Your task to perform on an android device: Search for a new lawnmower on Lowes. Image 0: 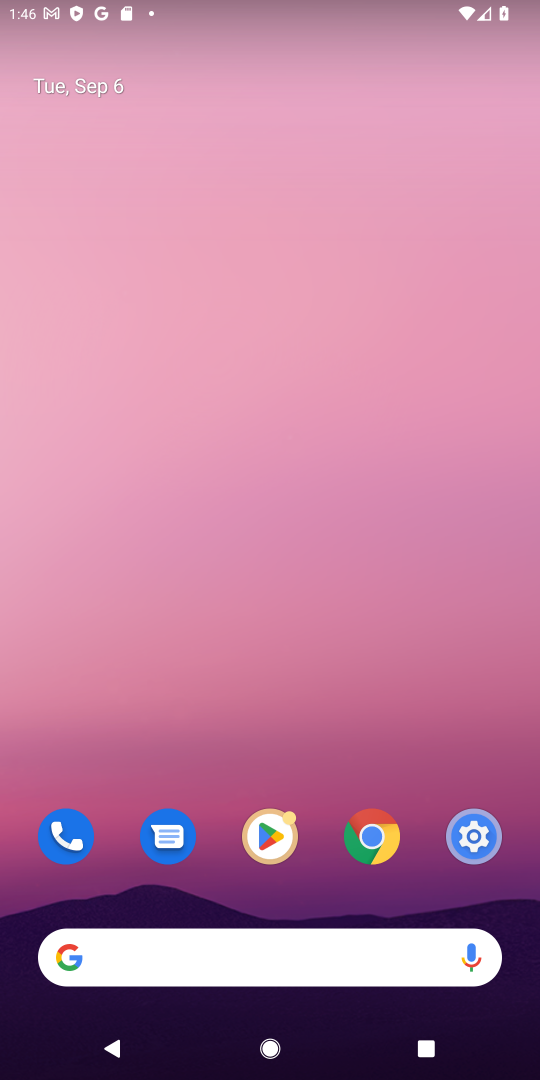
Step 0: click (181, 963)
Your task to perform on an android device: Search for a new lawnmower on Lowes. Image 1: 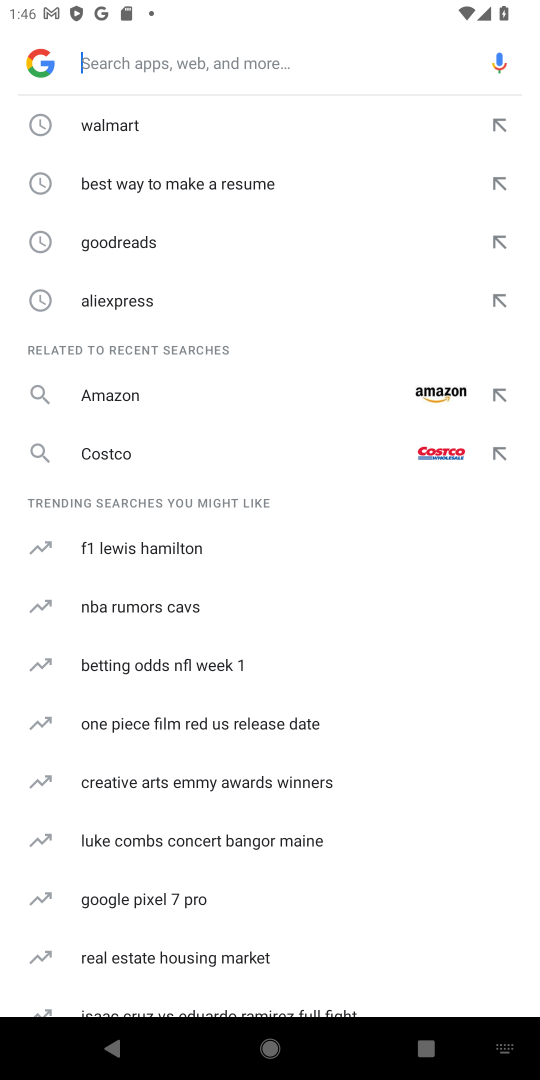
Step 1: type "lowes"
Your task to perform on an android device: Search for a new lawnmower on Lowes. Image 2: 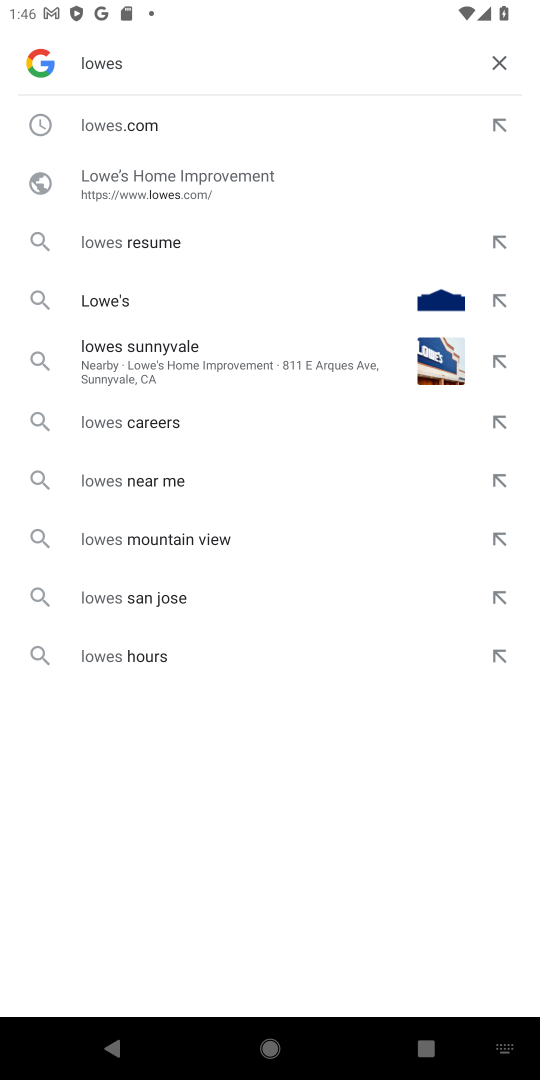
Step 2: click (112, 121)
Your task to perform on an android device: Search for a new lawnmower on Lowes. Image 3: 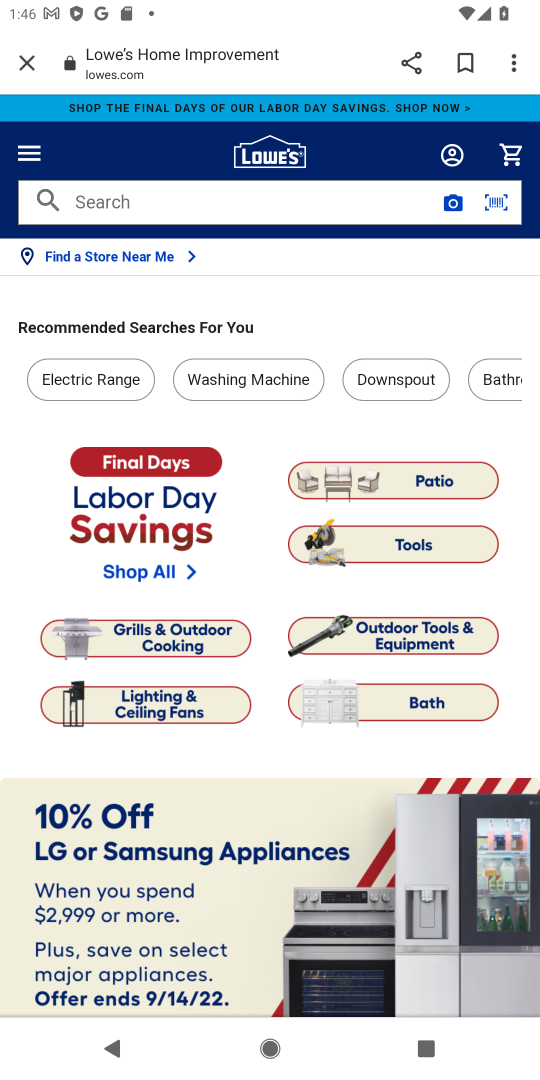
Step 3: click (140, 202)
Your task to perform on an android device: Search for a new lawnmower on Lowes. Image 4: 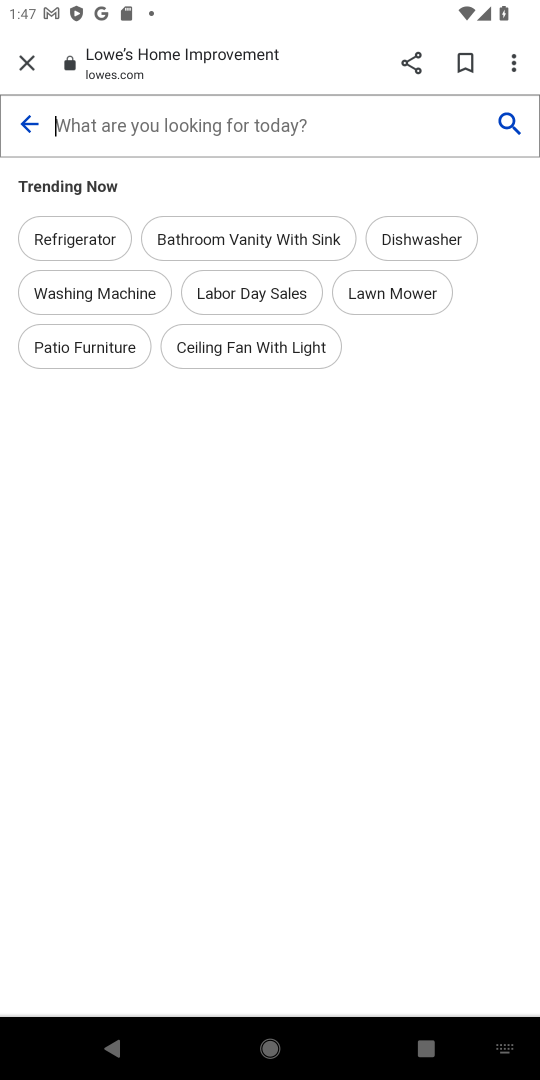
Step 4: type "new lawnmower"
Your task to perform on an android device: Search for a new lawnmower on Lowes. Image 5: 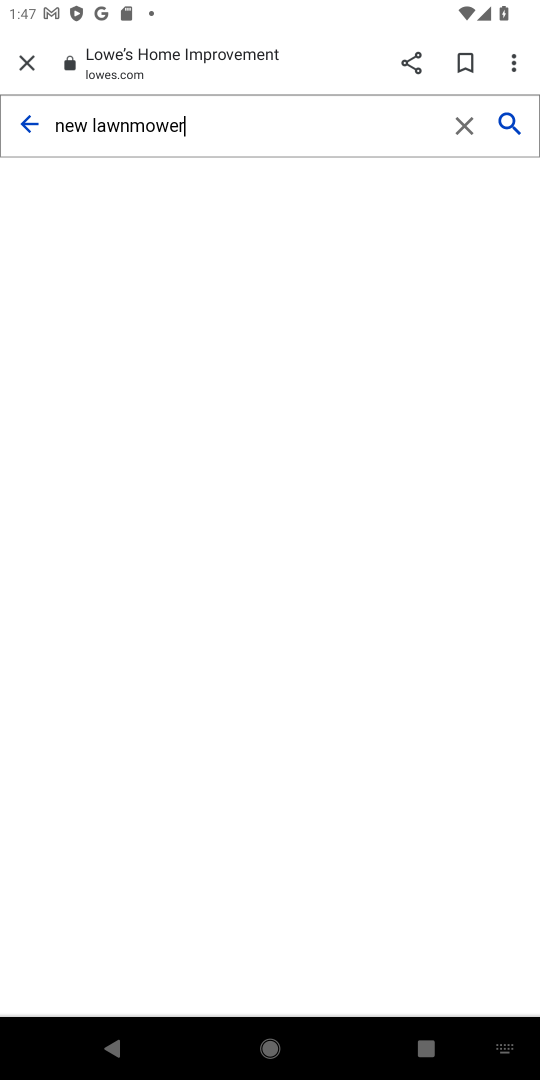
Step 5: click (503, 117)
Your task to perform on an android device: Search for a new lawnmower on Lowes. Image 6: 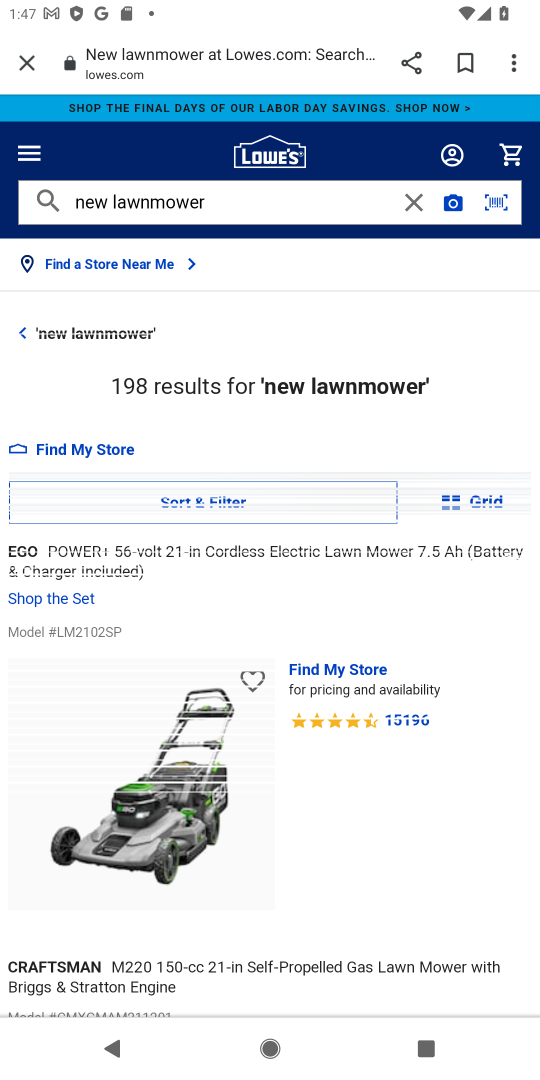
Step 6: task complete